Your task to perform on an android device: turn on javascript in the chrome app Image 0: 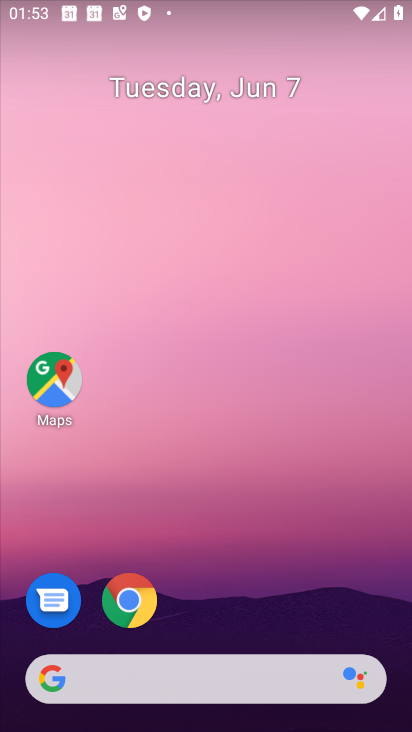
Step 0: click (133, 596)
Your task to perform on an android device: turn on javascript in the chrome app Image 1: 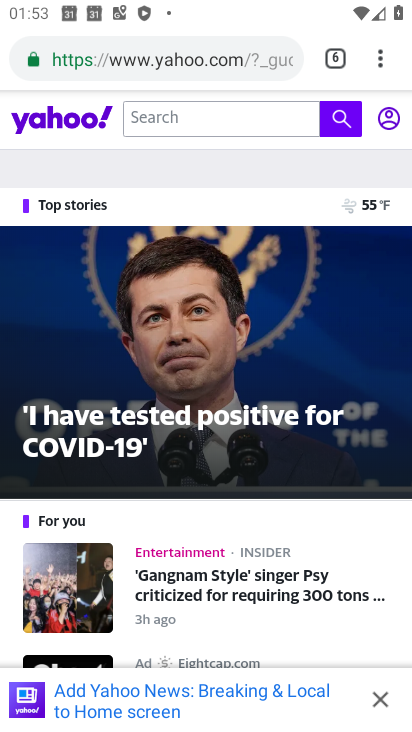
Step 1: click (378, 64)
Your task to perform on an android device: turn on javascript in the chrome app Image 2: 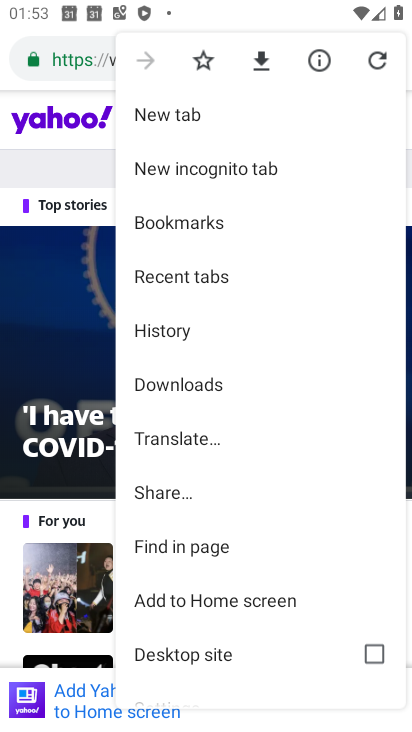
Step 2: drag from (195, 623) to (187, 234)
Your task to perform on an android device: turn on javascript in the chrome app Image 3: 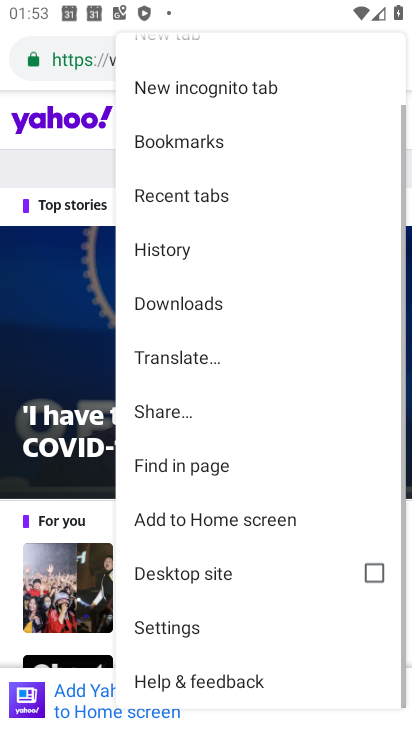
Step 3: click (180, 623)
Your task to perform on an android device: turn on javascript in the chrome app Image 4: 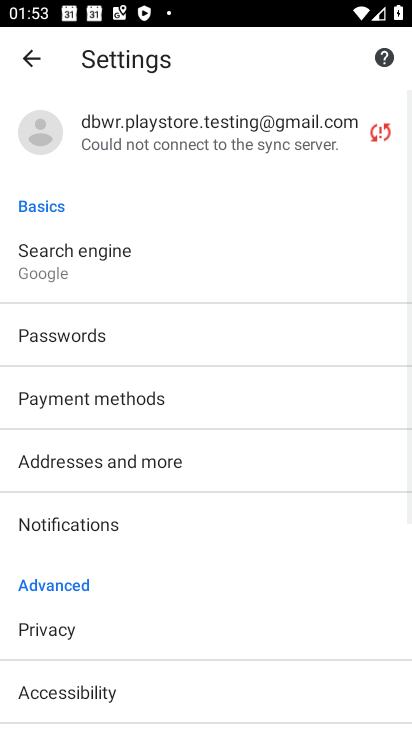
Step 4: drag from (142, 665) to (142, 309)
Your task to perform on an android device: turn on javascript in the chrome app Image 5: 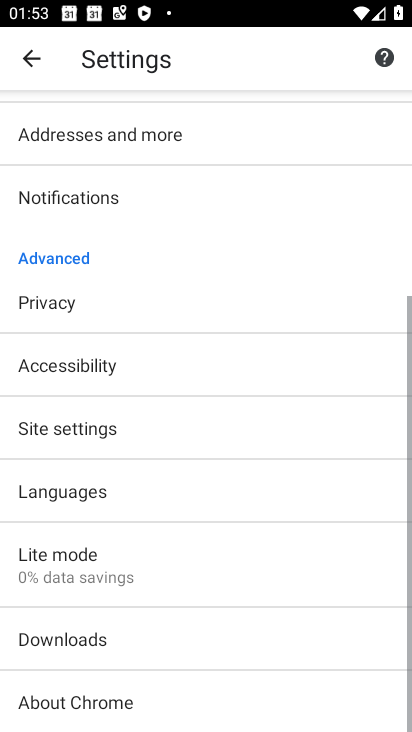
Step 5: click (73, 424)
Your task to perform on an android device: turn on javascript in the chrome app Image 6: 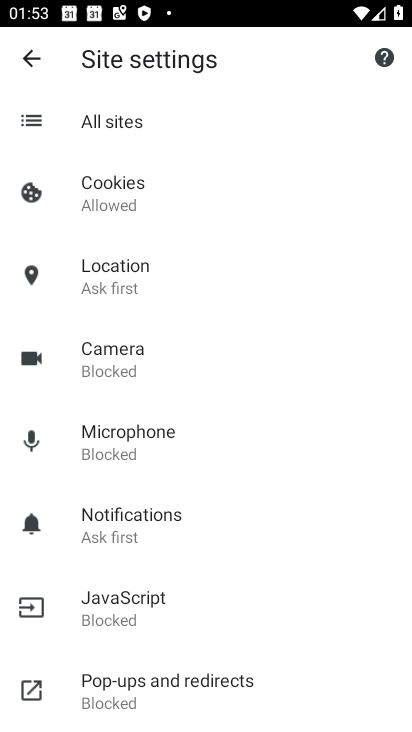
Step 6: click (123, 603)
Your task to perform on an android device: turn on javascript in the chrome app Image 7: 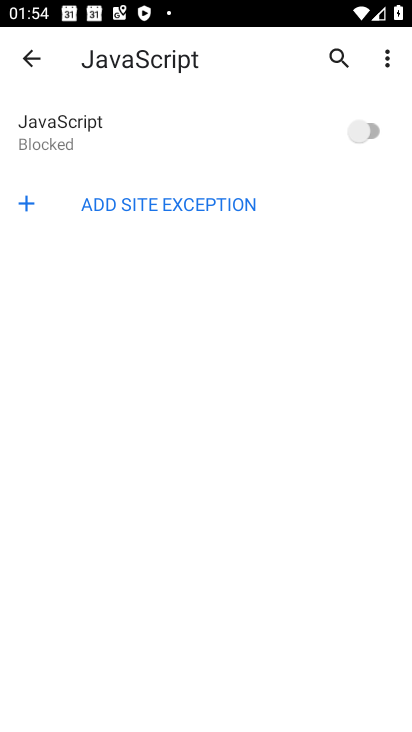
Step 7: click (373, 123)
Your task to perform on an android device: turn on javascript in the chrome app Image 8: 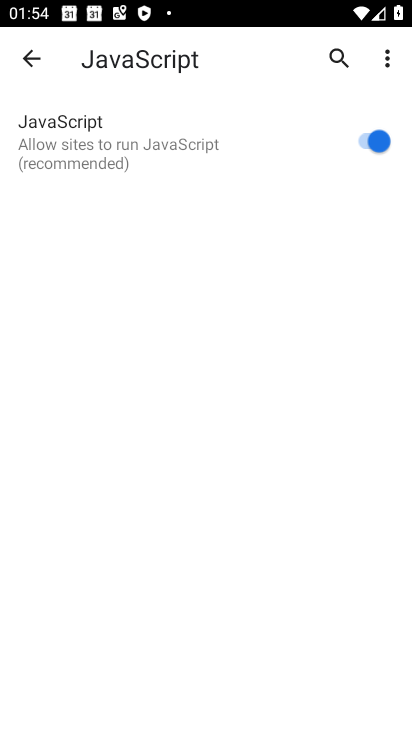
Step 8: task complete